Your task to perform on an android device: change notification settings in the gmail app Image 0: 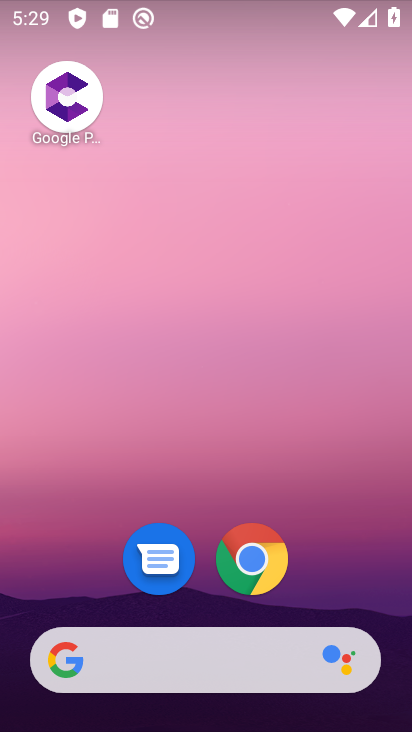
Step 0: drag from (365, 581) to (240, 51)
Your task to perform on an android device: change notification settings in the gmail app Image 1: 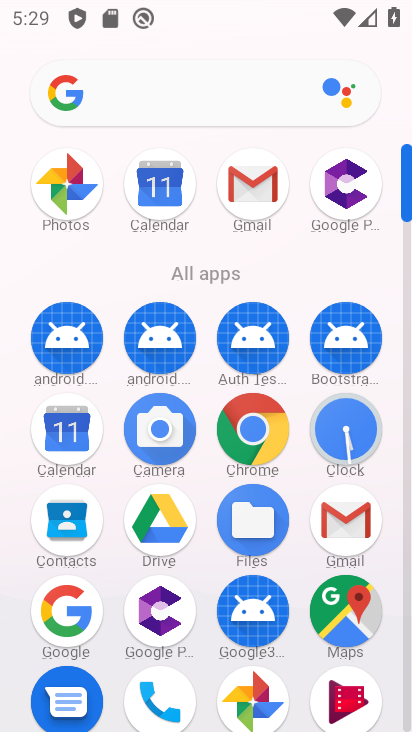
Step 1: click (348, 515)
Your task to perform on an android device: change notification settings in the gmail app Image 2: 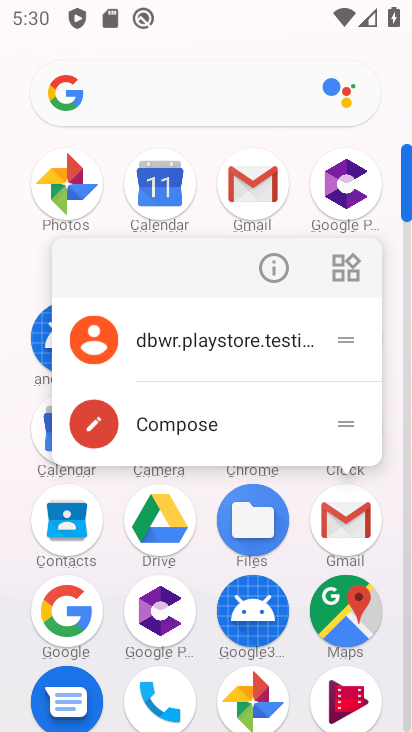
Step 2: click (281, 257)
Your task to perform on an android device: change notification settings in the gmail app Image 3: 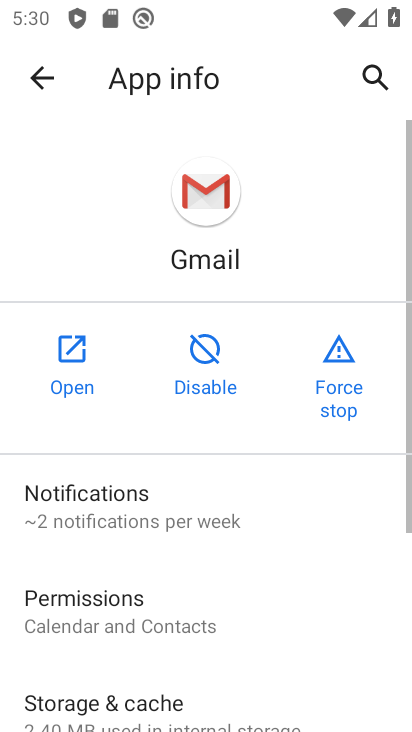
Step 3: click (141, 488)
Your task to perform on an android device: change notification settings in the gmail app Image 4: 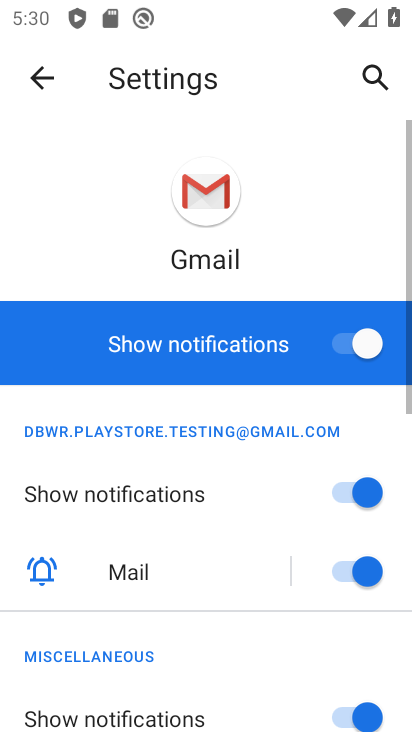
Step 4: click (356, 342)
Your task to perform on an android device: change notification settings in the gmail app Image 5: 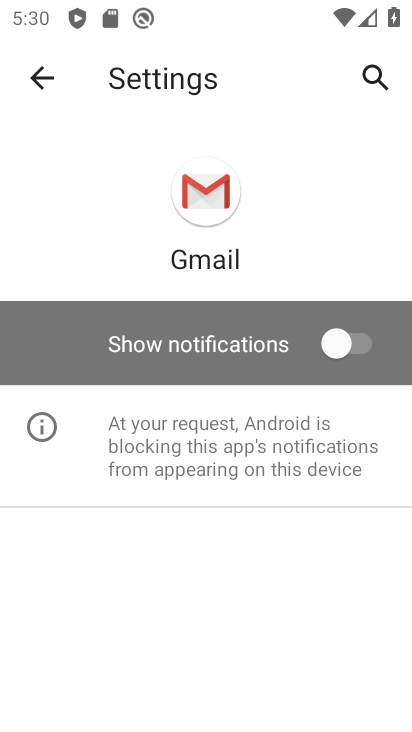
Step 5: task complete